Your task to perform on an android device: check google app version Image 0: 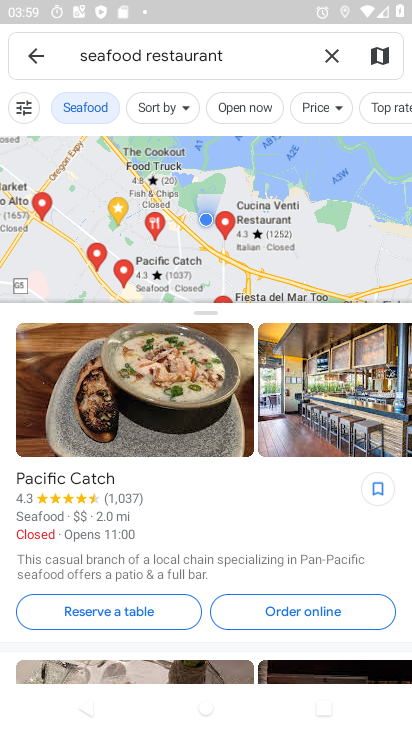
Step 0: press home button
Your task to perform on an android device: check google app version Image 1: 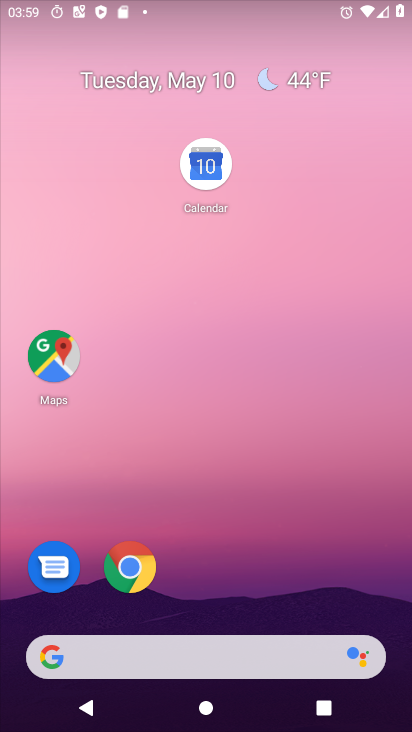
Step 1: drag from (248, 583) to (300, 30)
Your task to perform on an android device: check google app version Image 2: 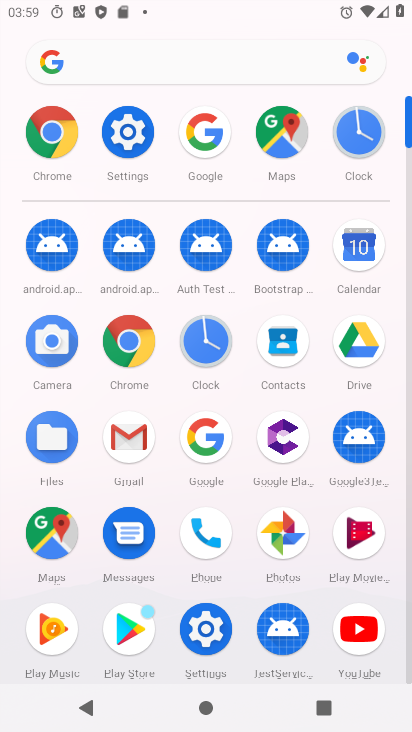
Step 2: click (206, 434)
Your task to perform on an android device: check google app version Image 3: 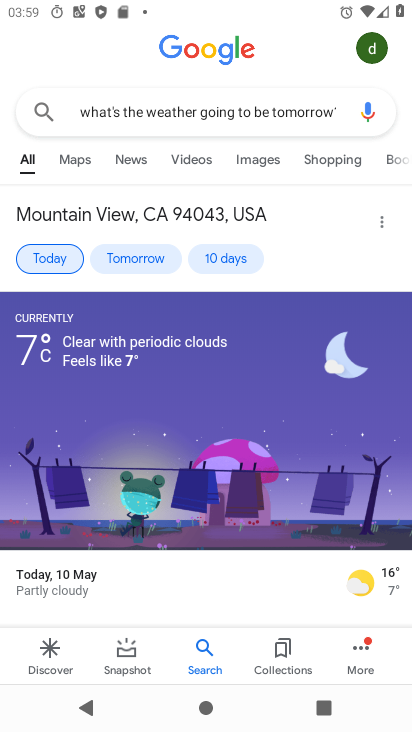
Step 3: click (363, 660)
Your task to perform on an android device: check google app version Image 4: 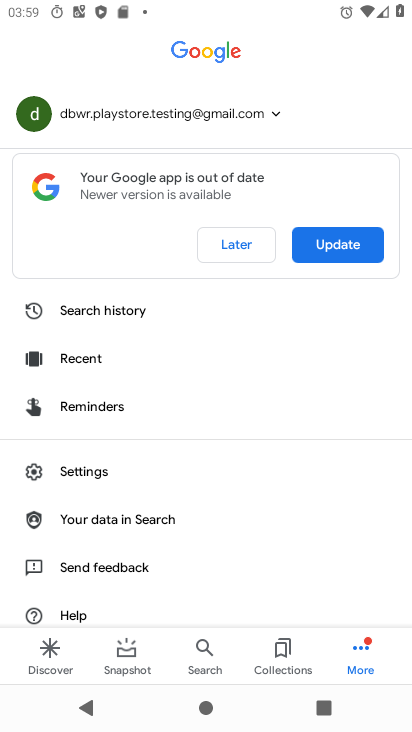
Step 4: drag from (109, 581) to (156, 391)
Your task to perform on an android device: check google app version Image 5: 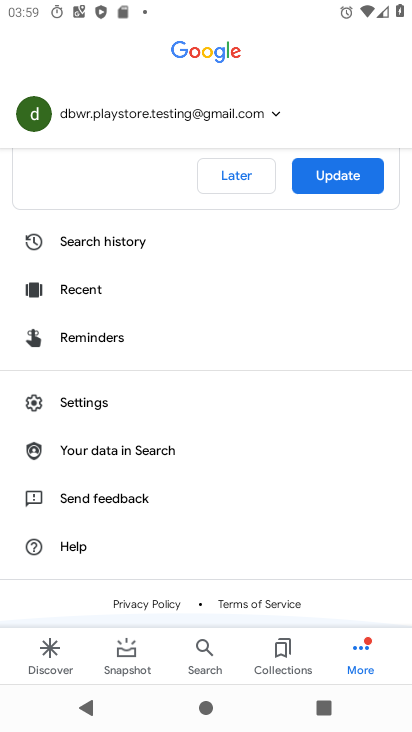
Step 5: click (111, 388)
Your task to perform on an android device: check google app version Image 6: 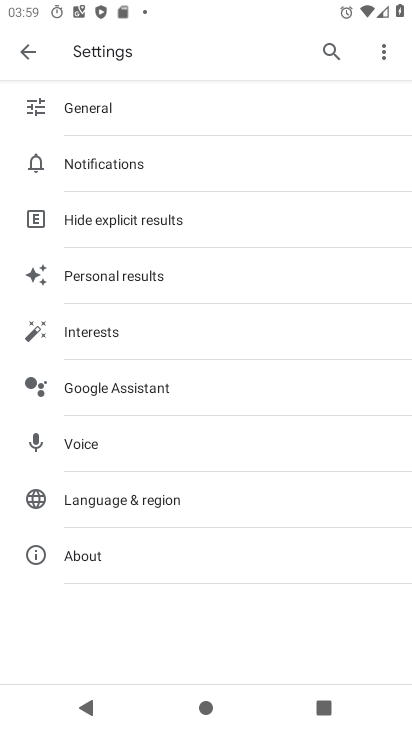
Step 6: drag from (101, 111) to (160, 566)
Your task to perform on an android device: check google app version Image 7: 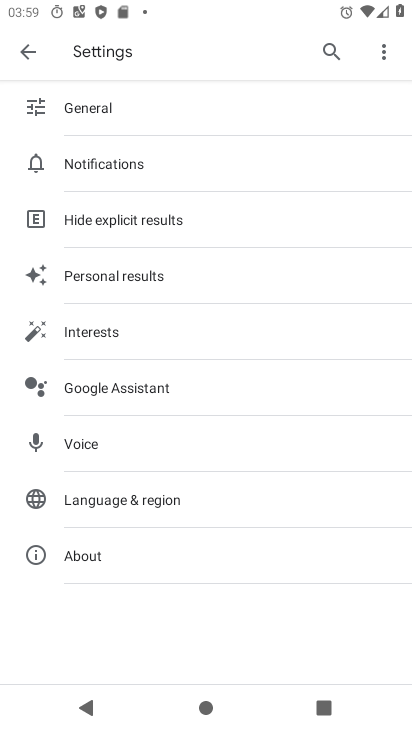
Step 7: click (113, 555)
Your task to perform on an android device: check google app version Image 8: 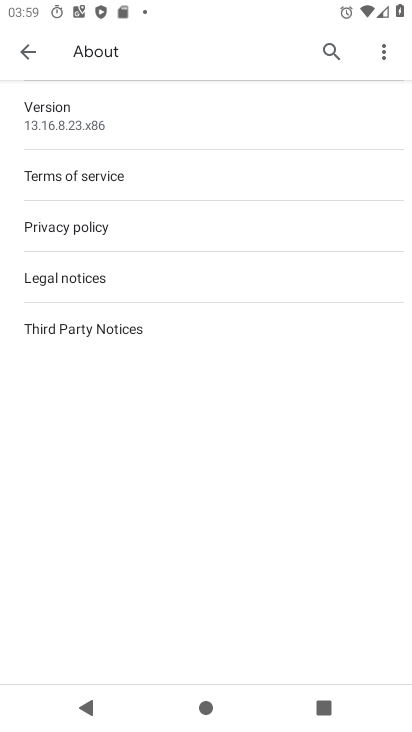
Step 8: click (98, 102)
Your task to perform on an android device: check google app version Image 9: 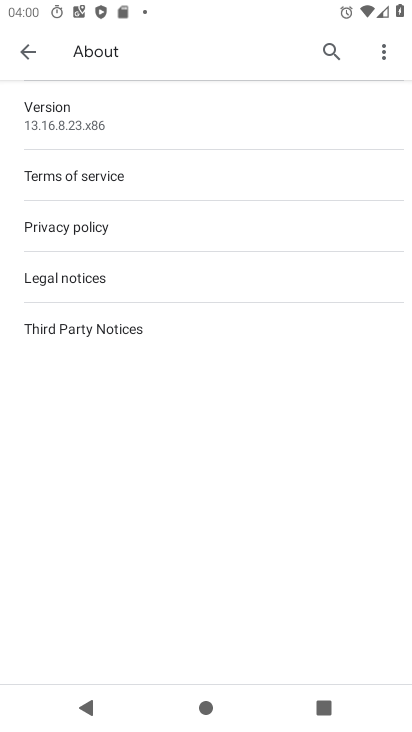
Step 9: task complete